Your task to perform on an android device: Show me recent news Image 0: 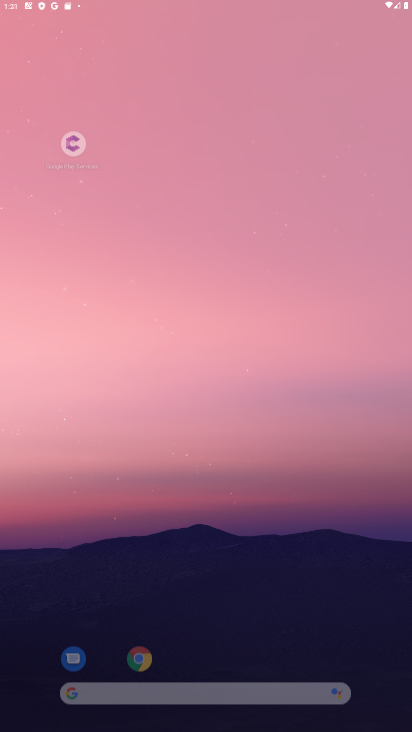
Step 0: click (208, 102)
Your task to perform on an android device: Show me recent news Image 1: 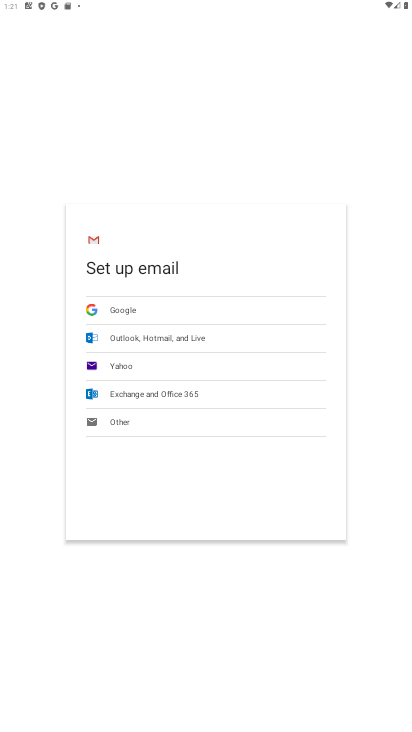
Step 1: press home button
Your task to perform on an android device: Show me recent news Image 2: 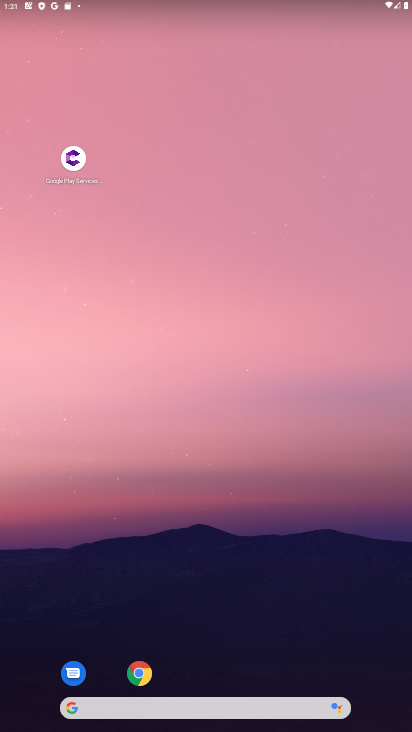
Step 2: drag from (248, 620) to (212, 187)
Your task to perform on an android device: Show me recent news Image 3: 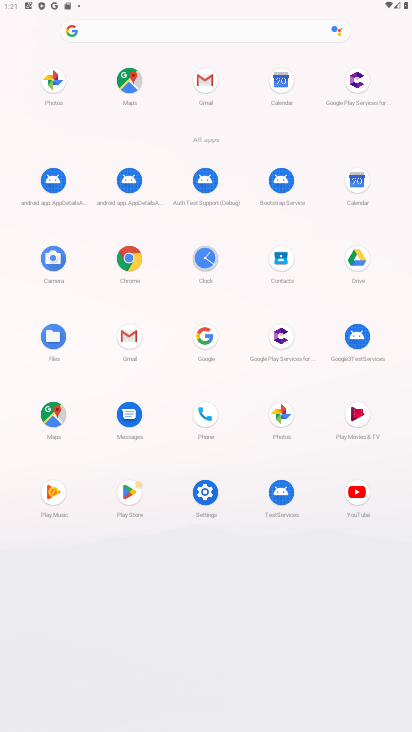
Step 3: click (131, 258)
Your task to perform on an android device: Show me recent news Image 4: 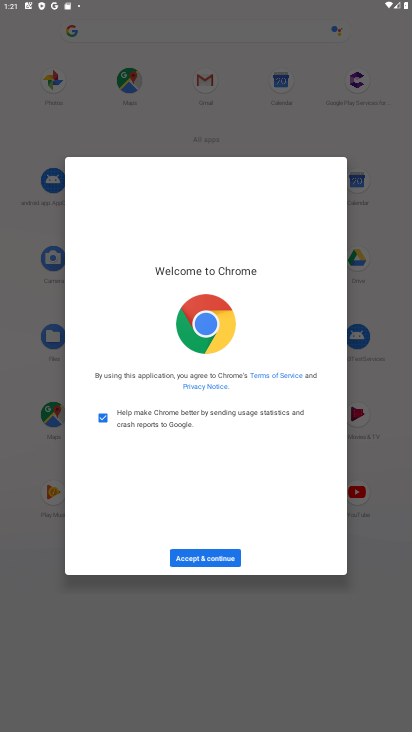
Step 4: click (209, 558)
Your task to perform on an android device: Show me recent news Image 5: 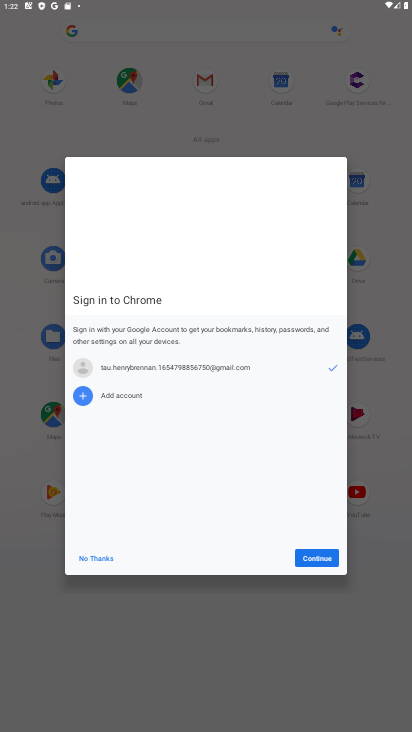
Step 5: click (319, 563)
Your task to perform on an android device: Show me recent news Image 6: 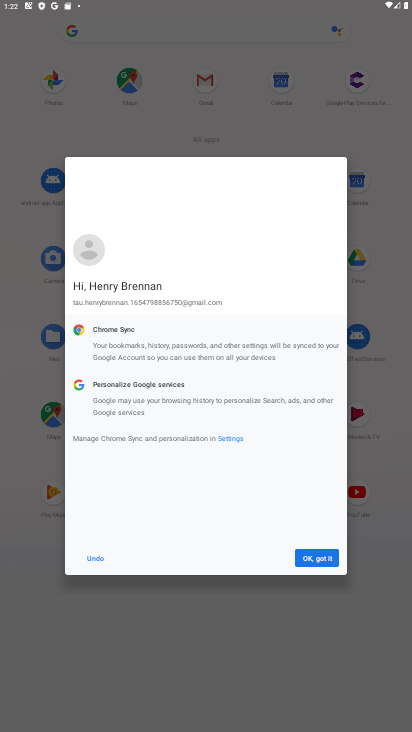
Step 6: click (319, 559)
Your task to perform on an android device: Show me recent news Image 7: 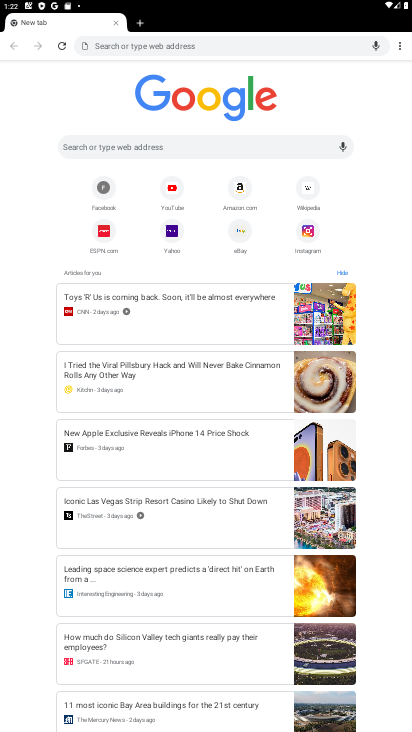
Step 7: click (207, 149)
Your task to perform on an android device: Show me recent news Image 8: 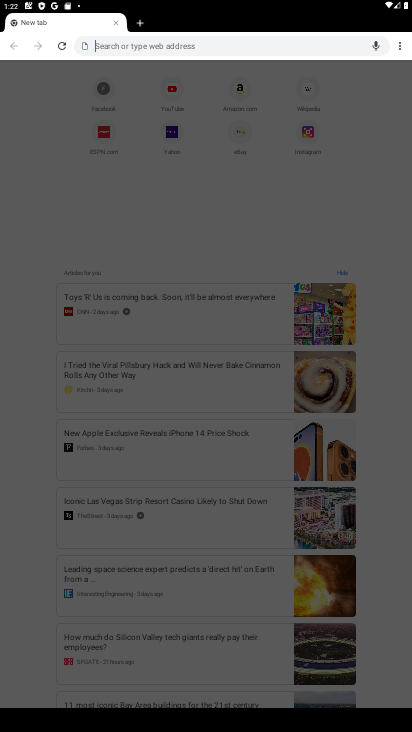
Step 8: type "news"
Your task to perform on an android device: Show me recent news Image 9: 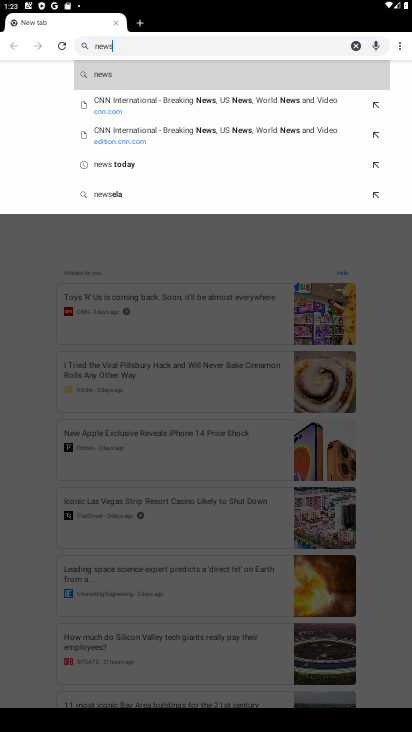
Step 9: click (354, 47)
Your task to perform on an android device: Show me recent news Image 10: 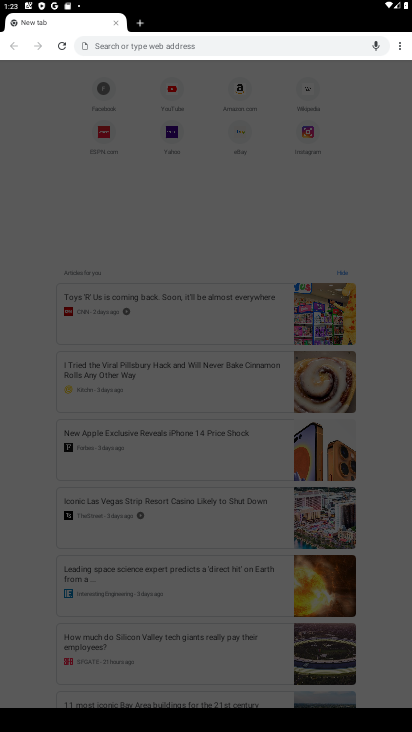
Step 10: type "recent news"
Your task to perform on an android device: Show me recent news Image 11: 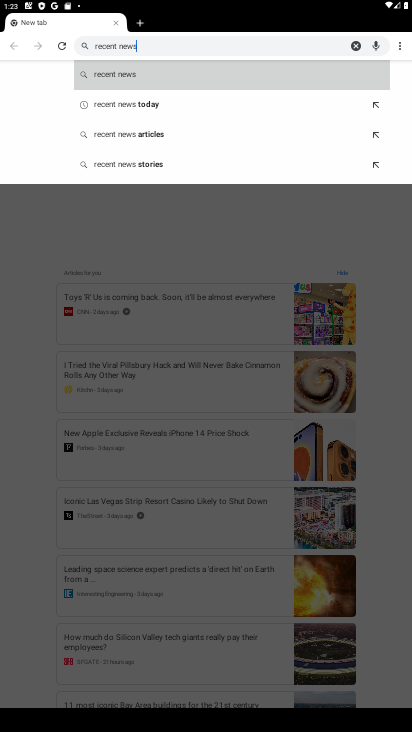
Step 11: click (140, 74)
Your task to perform on an android device: Show me recent news Image 12: 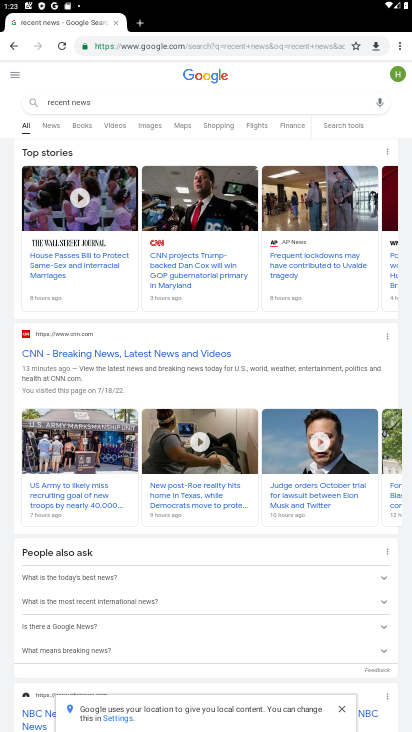
Step 12: task complete